Your task to perform on an android device: turn on showing notifications on the lock screen Image 0: 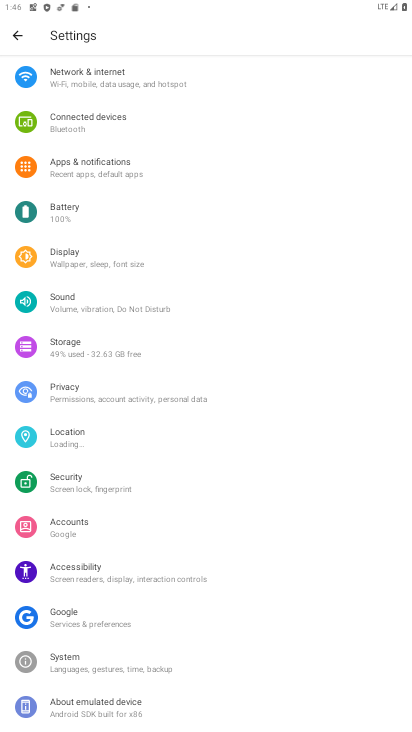
Step 0: press home button
Your task to perform on an android device: turn on showing notifications on the lock screen Image 1: 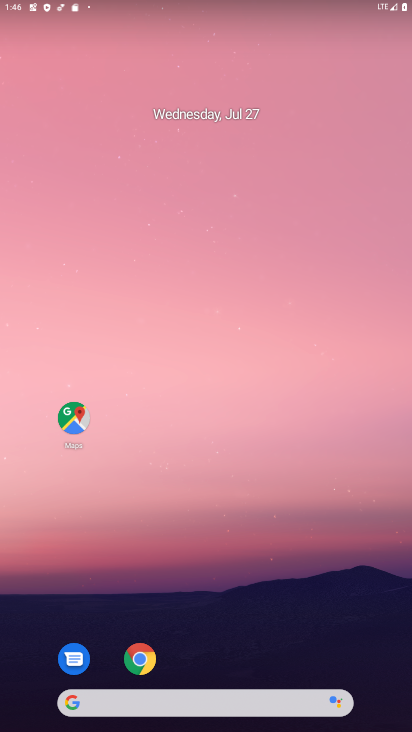
Step 1: drag from (218, 726) to (218, 78)
Your task to perform on an android device: turn on showing notifications on the lock screen Image 2: 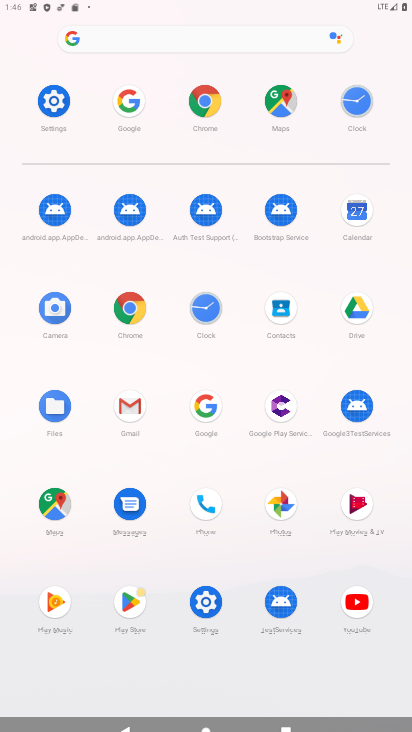
Step 2: click (204, 601)
Your task to perform on an android device: turn on showing notifications on the lock screen Image 3: 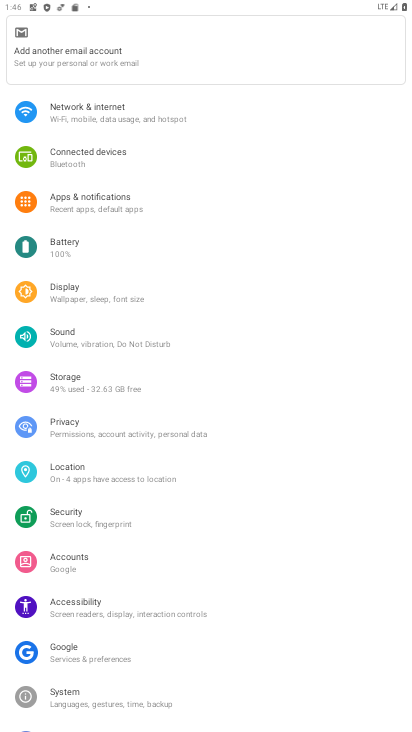
Step 3: click (94, 201)
Your task to perform on an android device: turn on showing notifications on the lock screen Image 4: 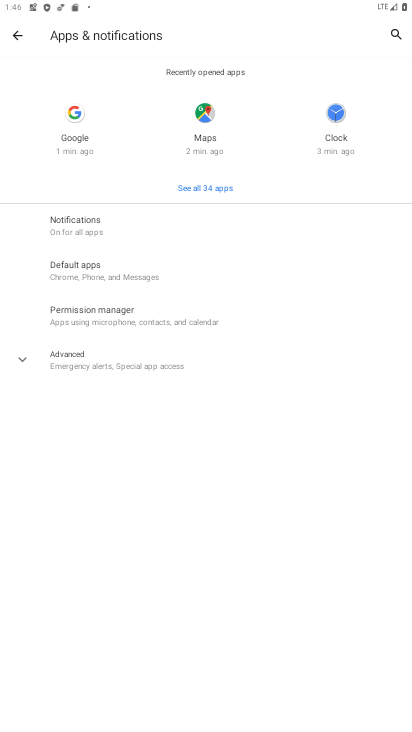
Step 4: click (86, 219)
Your task to perform on an android device: turn on showing notifications on the lock screen Image 5: 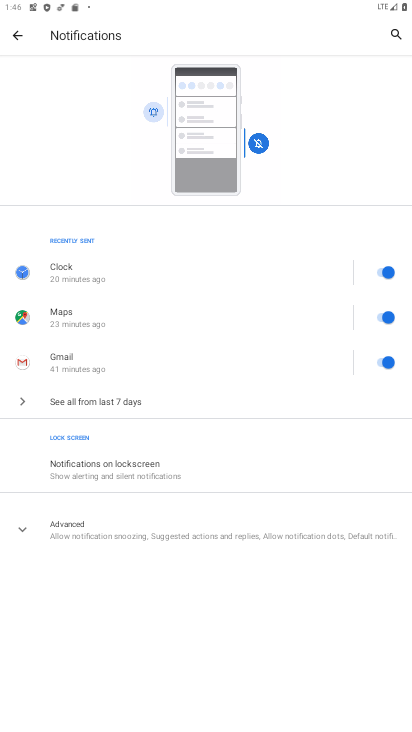
Step 5: click (97, 471)
Your task to perform on an android device: turn on showing notifications on the lock screen Image 6: 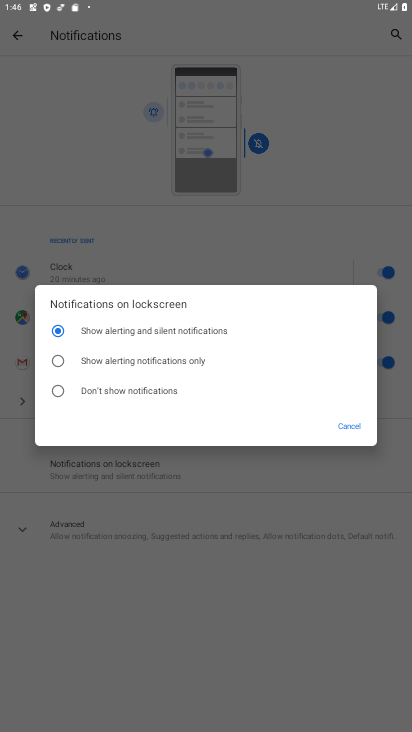
Step 6: task complete